Your task to perform on an android device: Open wifi settings Image 0: 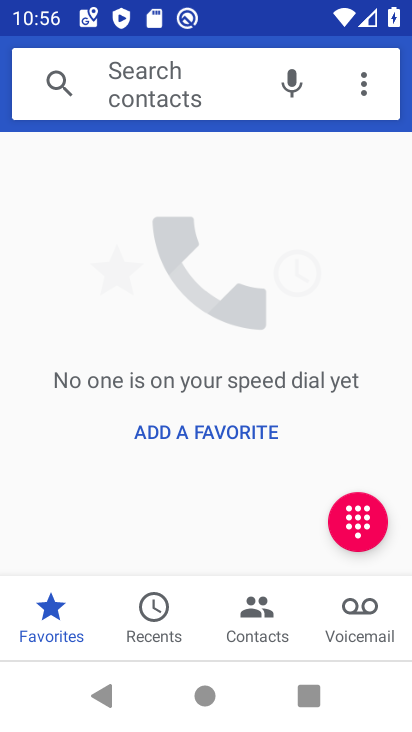
Step 0: press home button
Your task to perform on an android device: Open wifi settings Image 1: 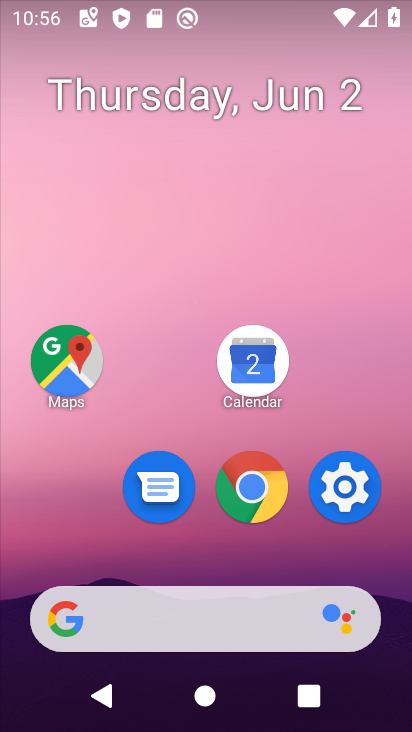
Step 1: drag from (240, 654) to (206, 93)
Your task to perform on an android device: Open wifi settings Image 2: 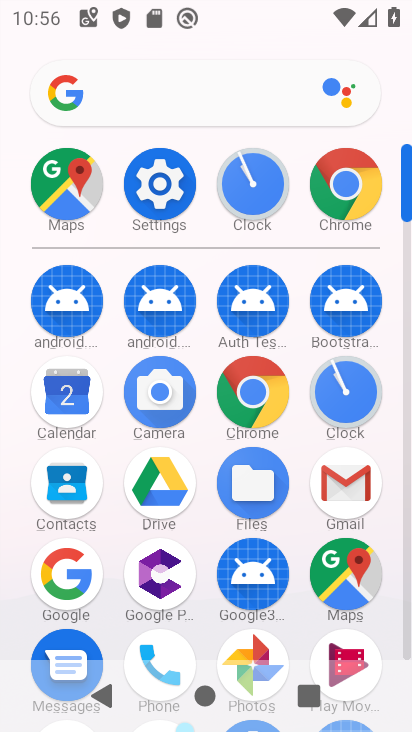
Step 2: click (155, 201)
Your task to perform on an android device: Open wifi settings Image 3: 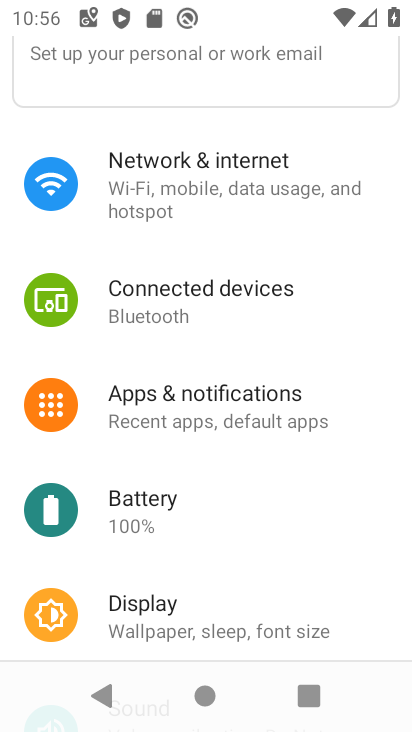
Step 3: click (155, 201)
Your task to perform on an android device: Open wifi settings Image 4: 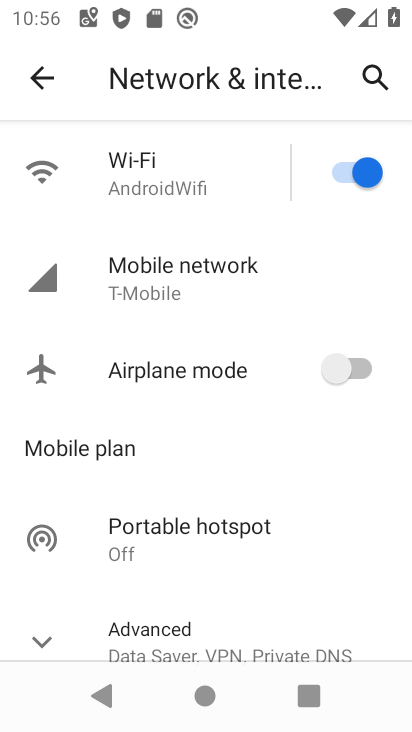
Step 4: click (160, 157)
Your task to perform on an android device: Open wifi settings Image 5: 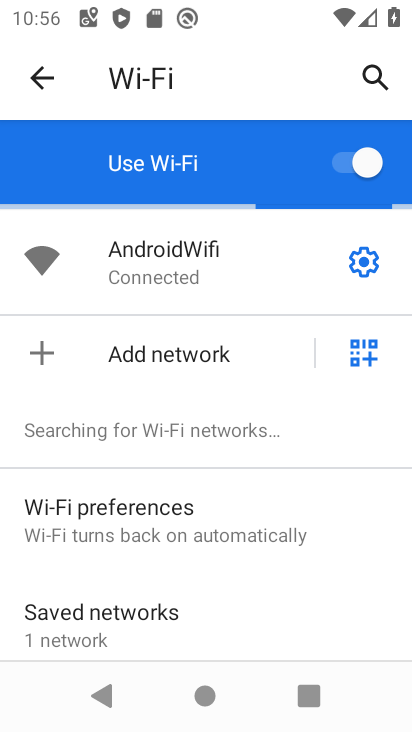
Step 5: task complete